Your task to perform on an android device: Open notification settings Image 0: 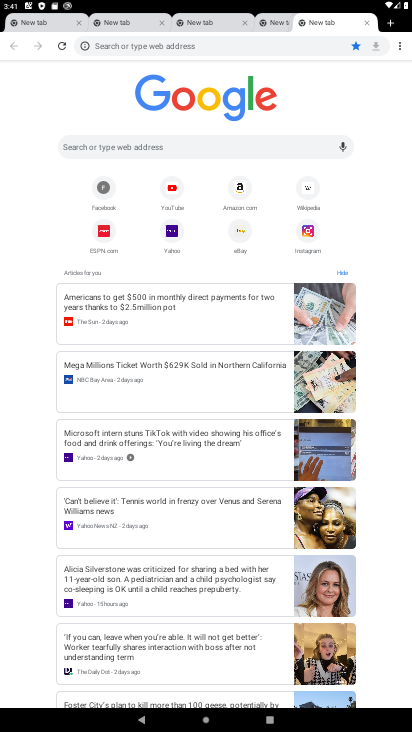
Step 0: click (28, 698)
Your task to perform on an android device: Open notification settings Image 1: 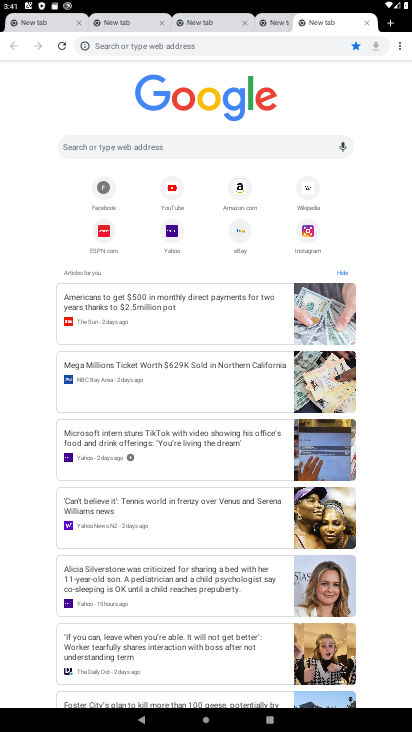
Step 1: press home button
Your task to perform on an android device: Open notification settings Image 2: 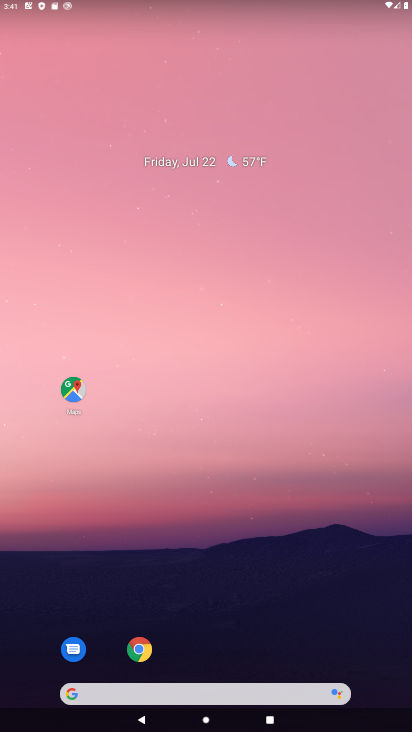
Step 2: drag from (30, 697) to (315, 201)
Your task to perform on an android device: Open notification settings Image 3: 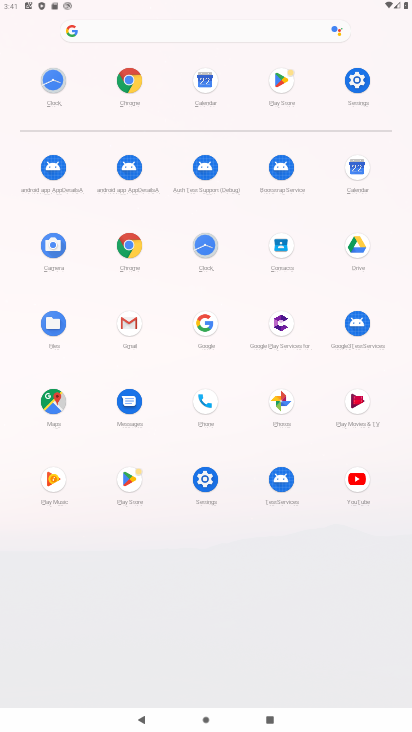
Step 3: click (217, 483)
Your task to perform on an android device: Open notification settings Image 4: 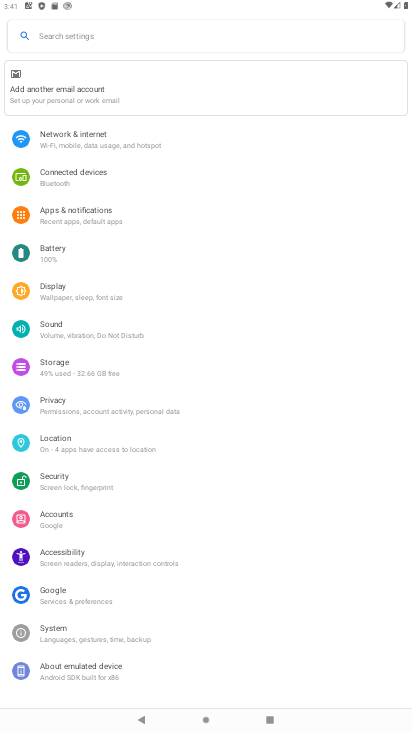
Step 4: click (53, 221)
Your task to perform on an android device: Open notification settings Image 5: 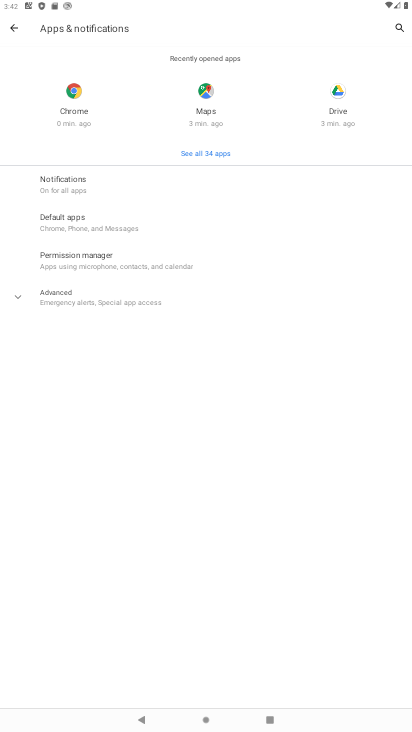
Step 5: task complete